Your task to perform on an android device: open chrome and create a bookmark for the current page Image 0: 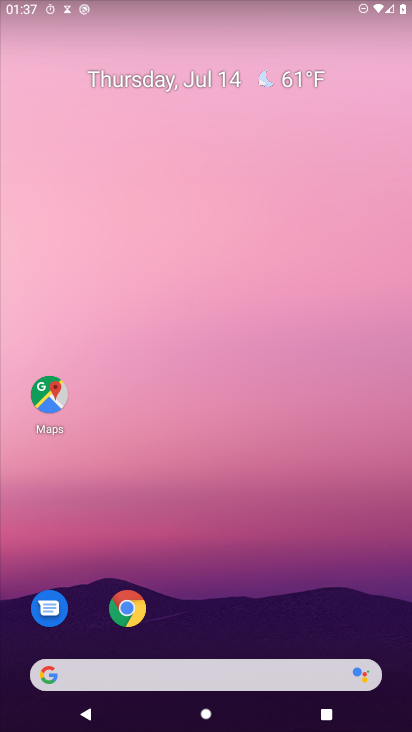
Step 0: press home button
Your task to perform on an android device: open chrome and create a bookmark for the current page Image 1: 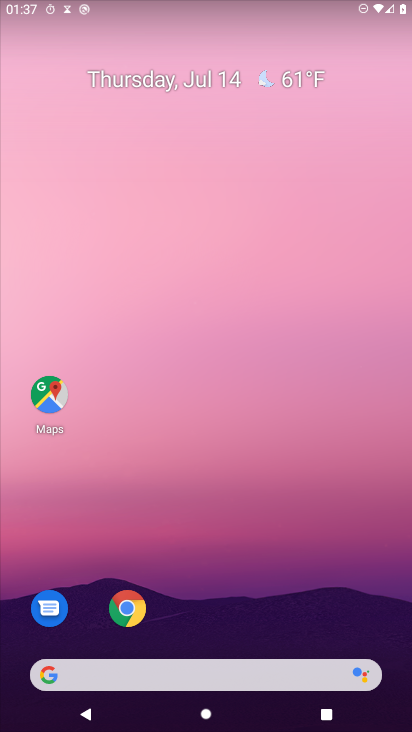
Step 1: click (135, 613)
Your task to perform on an android device: open chrome and create a bookmark for the current page Image 2: 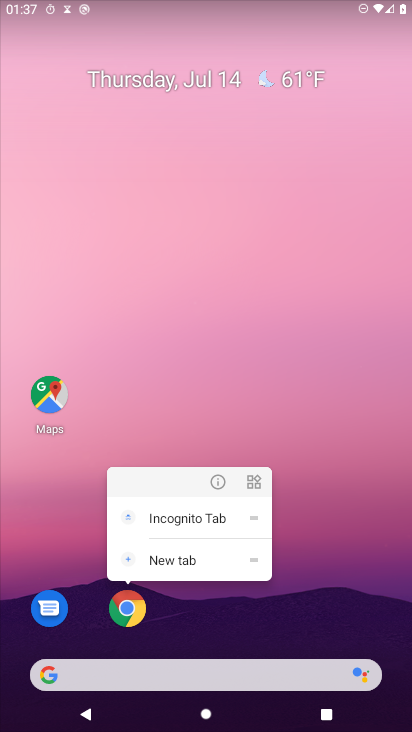
Step 2: click (134, 619)
Your task to perform on an android device: open chrome and create a bookmark for the current page Image 3: 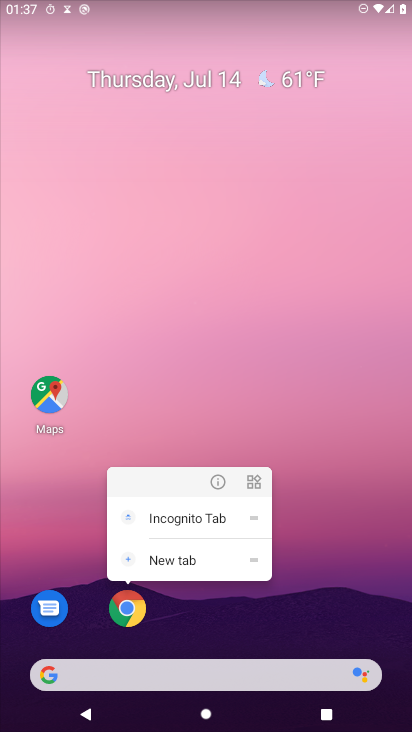
Step 3: click (134, 619)
Your task to perform on an android device: open chrome and create a bookmark for the current page Image 4: 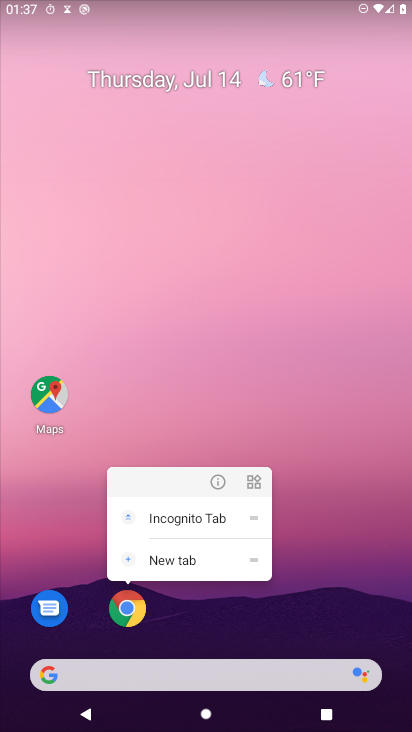
Step 4: click (134, 619)
Your task to perform on an android device: open chrome and create a bookmark for the current page Image 5: 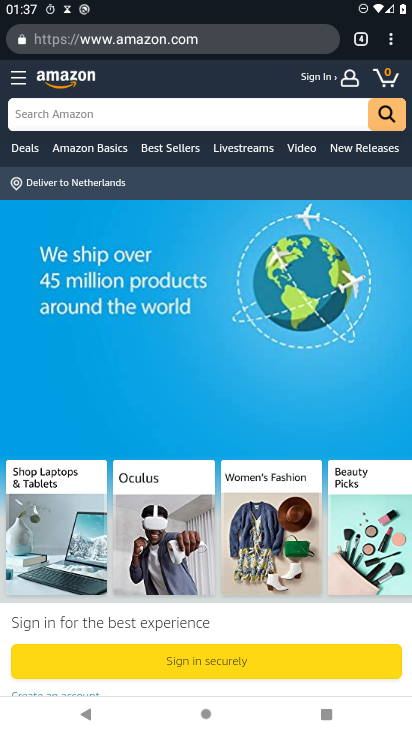
Step 5: drag from (394, 44) to (273, 38)
Your task to perform on an android device: open chrome and create a bookmark for the current page Image 6: 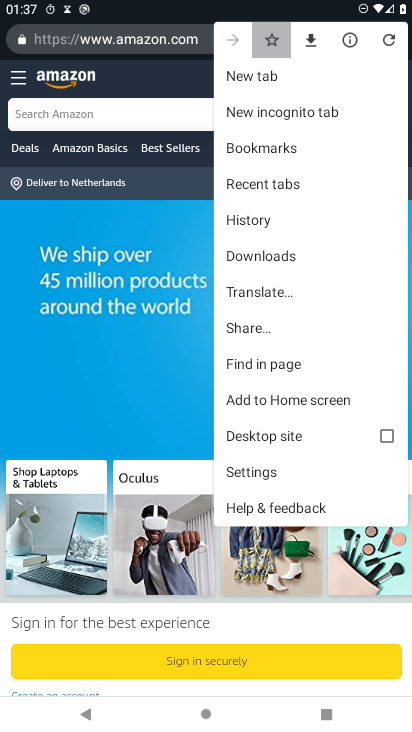
Step 6: click (273, 38)
Your task to perform on an android device: open chrome and create a bookmark for the current page Image 7: 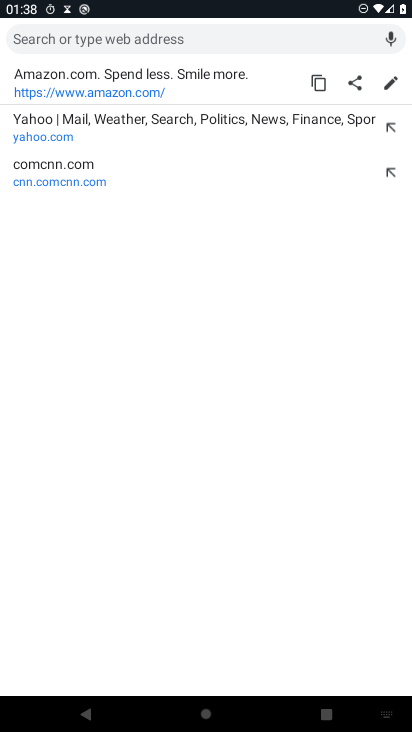
Step 7: task complete